Your task to perform on an android device: add a contact Image 0: 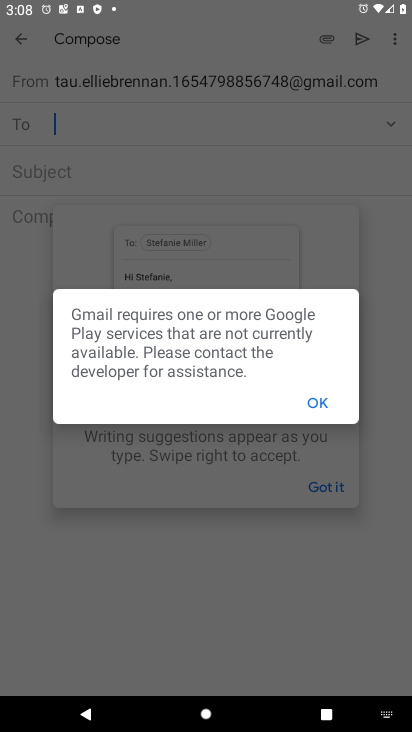
Step 0: press home button
Your task to perform on an android device: add a contact Image 1: 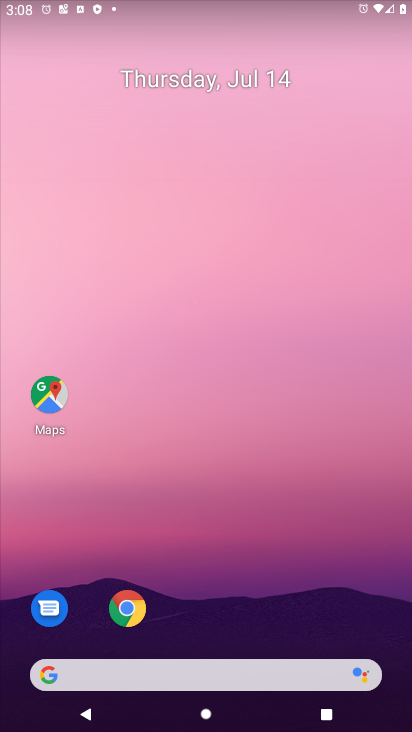
Step 1: drag from (388, 630) to (317, 121)
Your task to perform on an android device: add a contact Image 2: 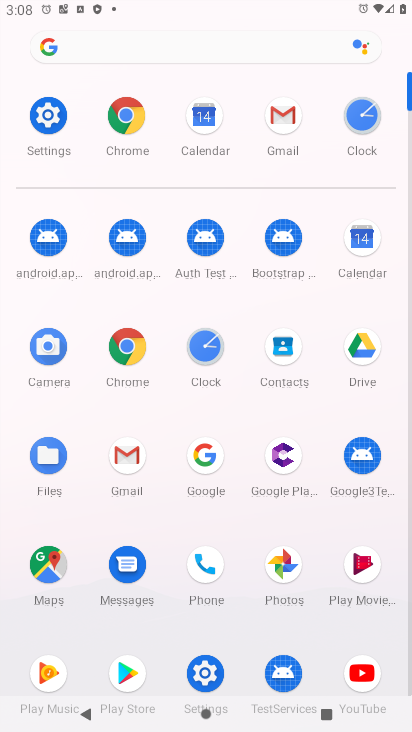
Step 2: click (284, 349)
Your task to perform on an android device: add a contact Image 3: 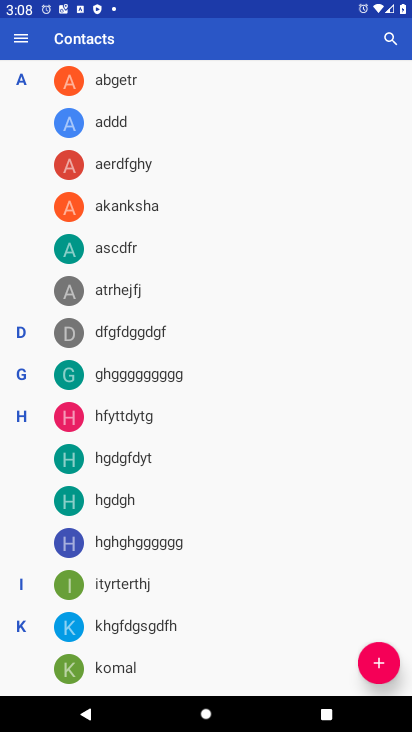
Step 3: click (379, 662)
Your task to perform on an android device: add a contact Image 4: 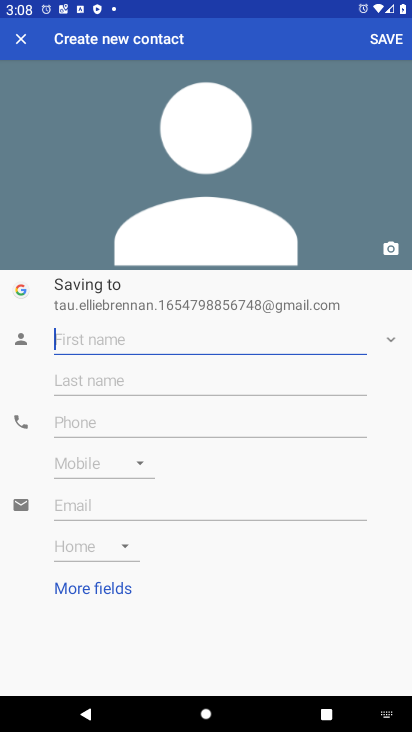
Step 4: type "oiuytfvbnmbv"
Your task to perform on an android device: add a contact Image 5: 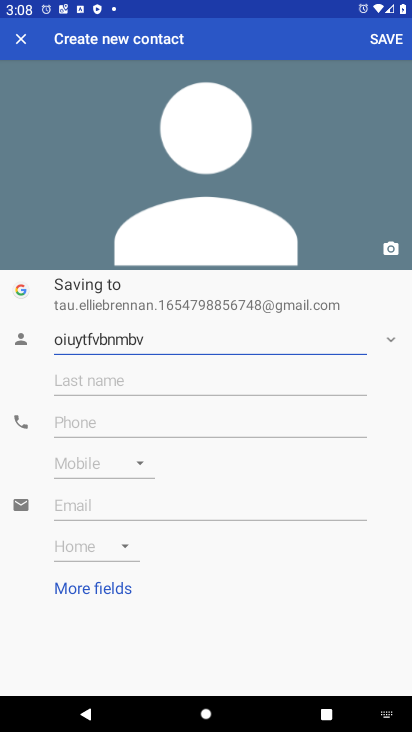
Step 5: click (74, 424)
Your task to perform on an android device: add a contact Image 6: 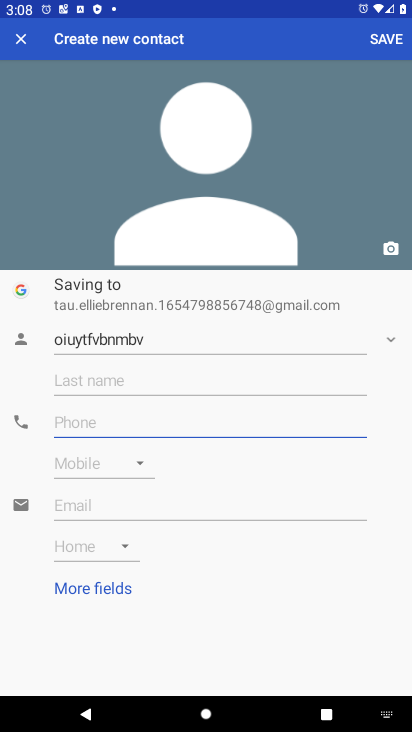
Step 6: type "09876542345"
Your task to perform on an android device: add a contact Image 7: 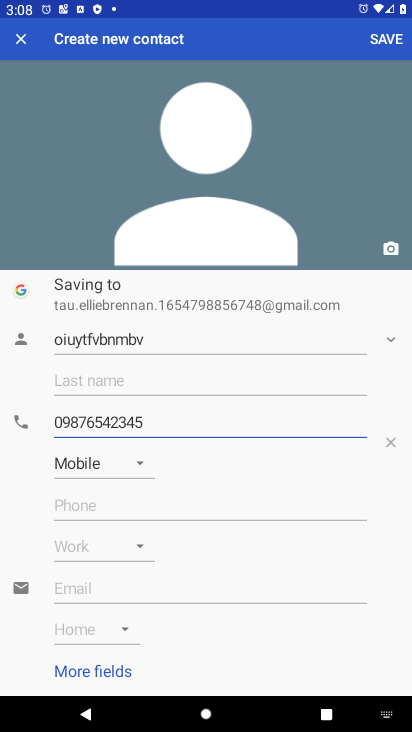
Step 7: click (389, 39)
Your task to perform on an android device: add a contact Image 8: 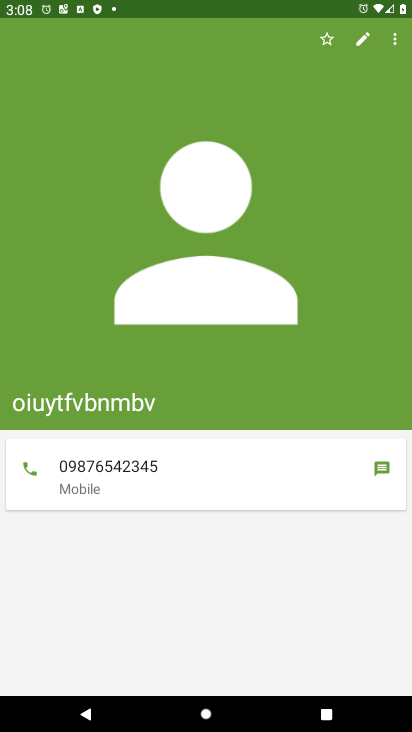
Step 8: task complete